Your task to perform on an android device: change notifications settings Image 0: 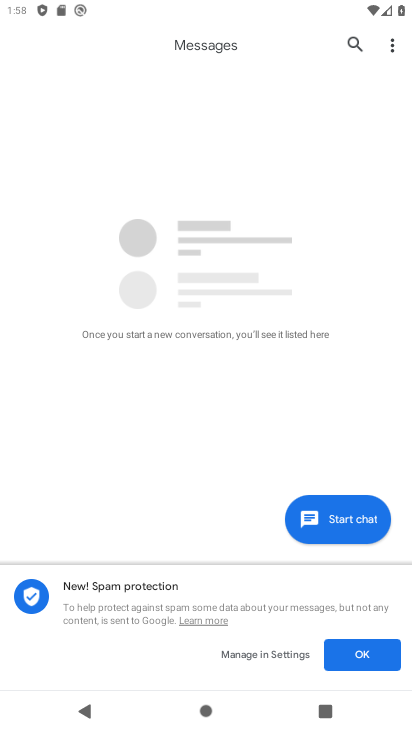
Step 0: press home button
Your task to perform on an android device: change notifications settings Image 1: 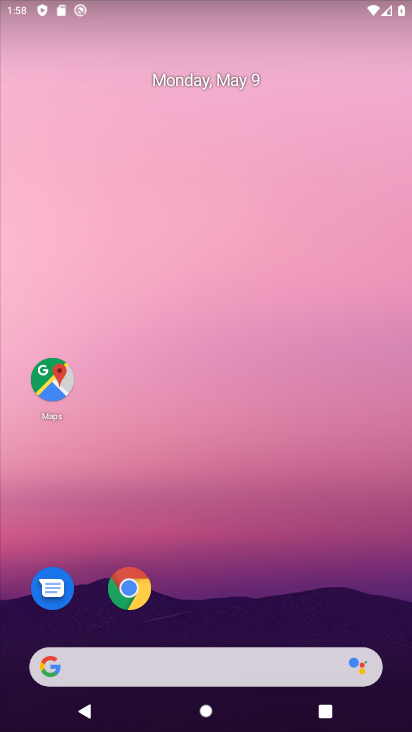
Step 1: drag from (338, 611) to (282, 116)
Your task to perform on an android device: change notifications settings Image 2: 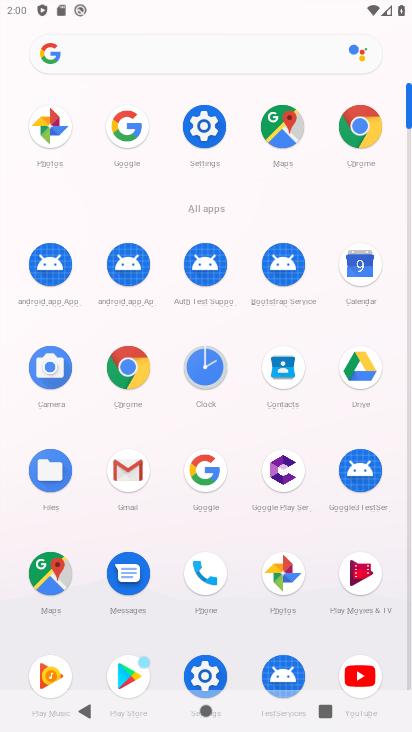
Step 2: click (198, 673)
Your task to perform on an android device: change notifications settings Image 3: 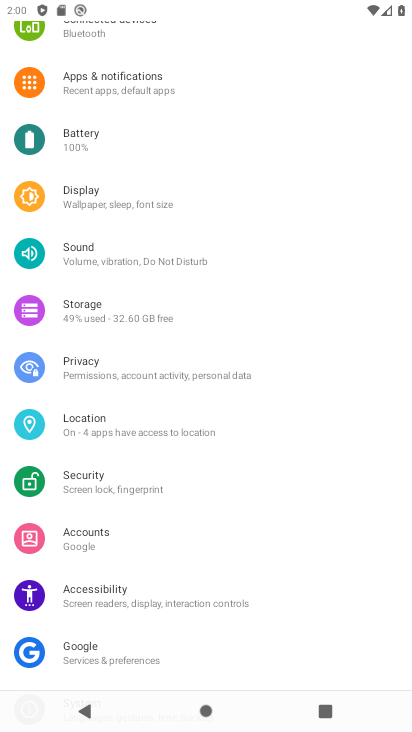
Step 3: click (221, 92)
Your task to perform on an android device: change notifications settings Image 4: 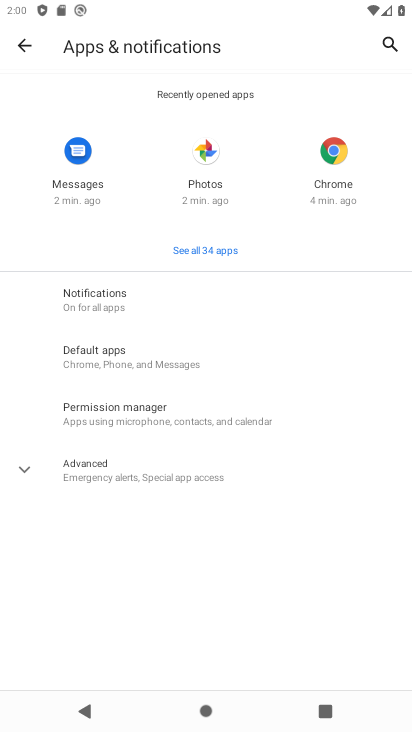
Step 4: click (163, 295)
Your task to perform on an android device: change notifications settings Image 5: 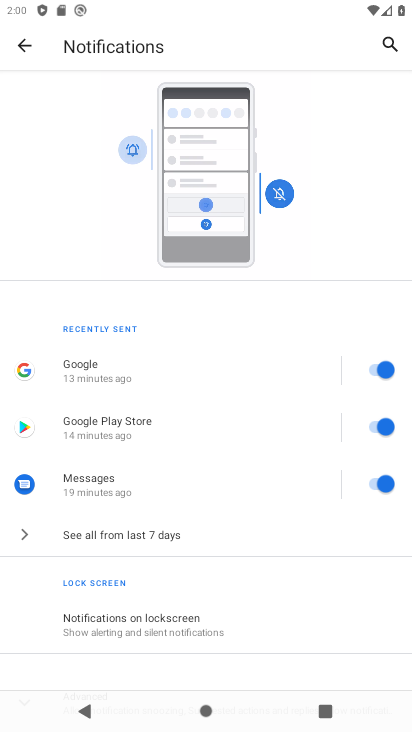
Step 5: task complete